Your task to perform on an android device: open app "Duolingo: language lessons" (install if not already installed) Image 0: 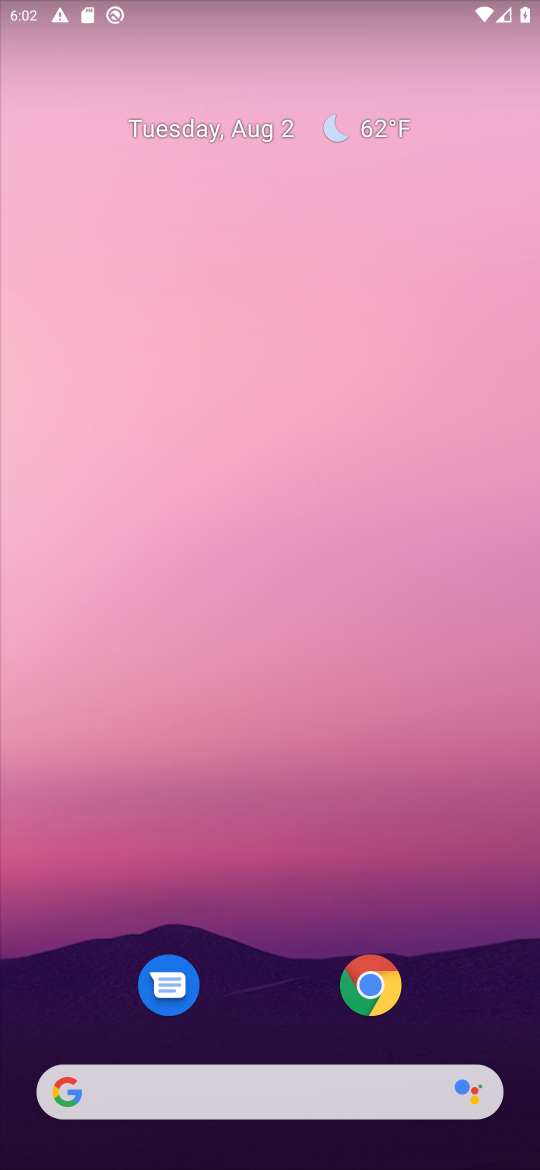
Step 0: drag from (284, 953) to (287, 427)
Your task to perform on an android device: open app "Duolingo: language lessons" (install if not already installed) Image 1: 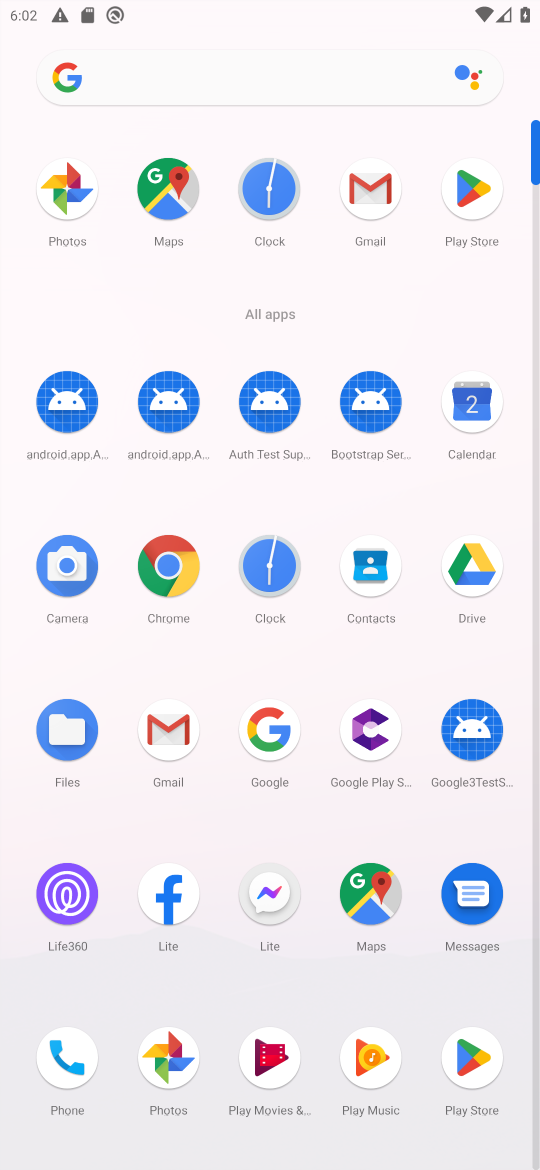
Step 1: click (474, 214)
Your task to perform on an android device: open app "Duolingo: language lessons" (install if not already installed) Image 2: 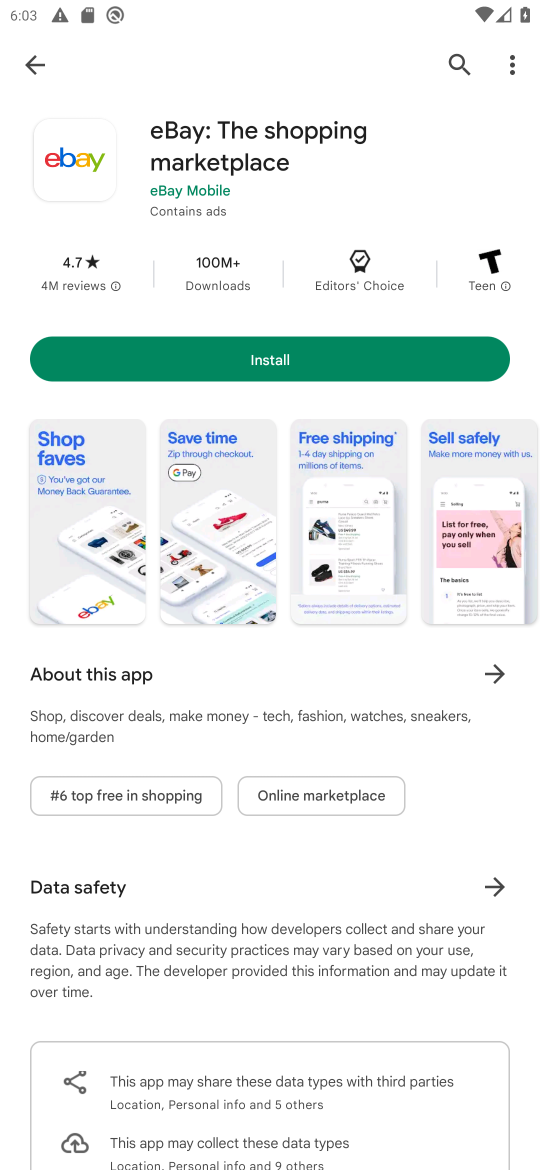
Step 2: click (453, 75)
Your task to perform on an android device: open app "Duolingo: language lessons" (install if not already installed) Image 3: 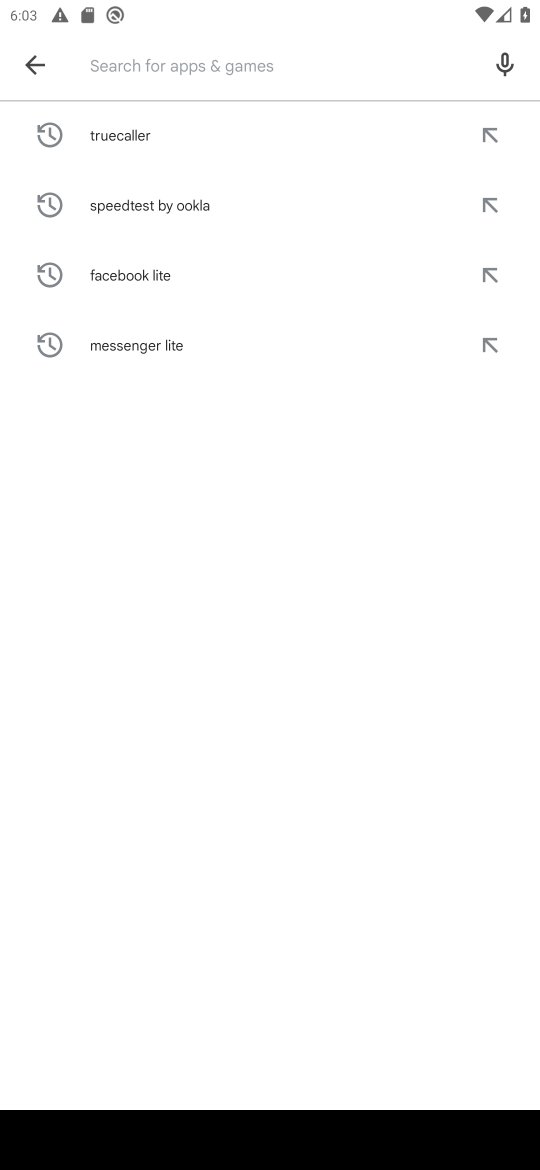
Step 3: type "Duolingo: language lessons"
Your task to perform on an android device: open app "Duolingo: language lessons" (install if not already installed) Image 4: 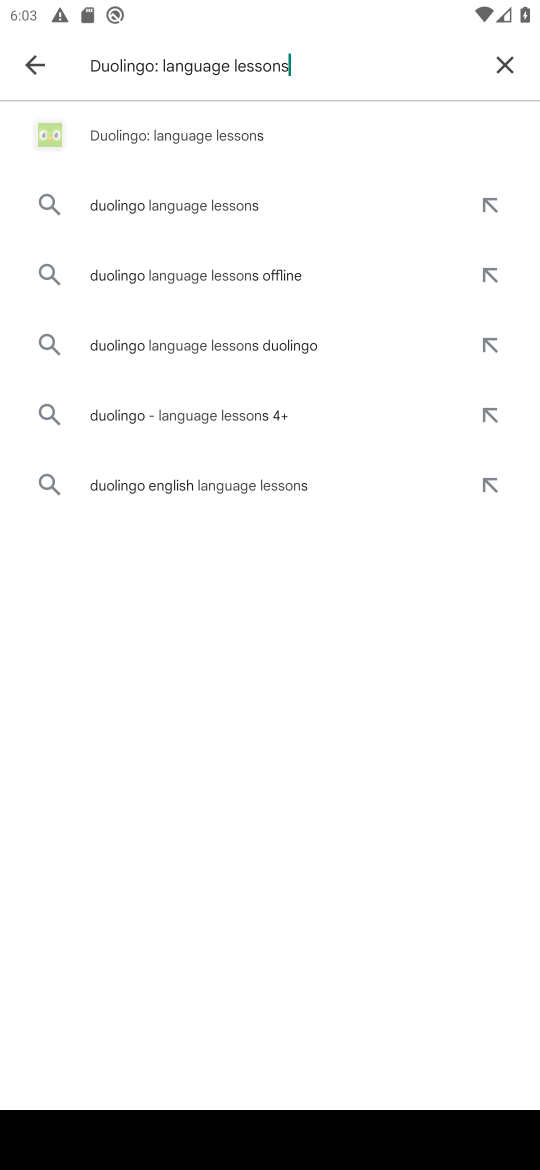
Step 4: type ""
Your task to perform on an android device: open app "Duolingo: language lessons" (install if not already installed) Image 5: 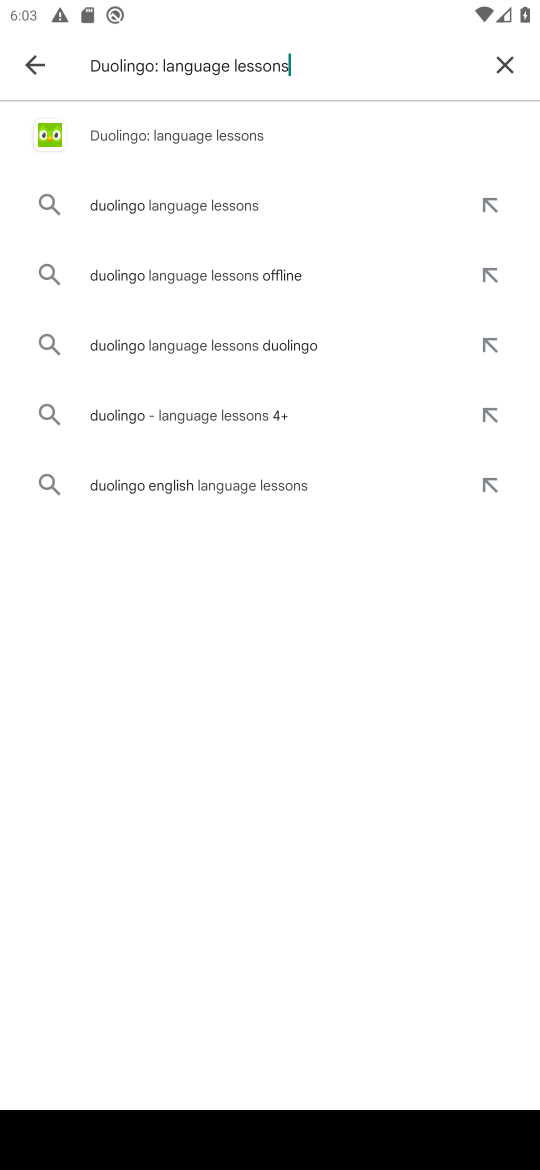
Step 5: click (132, 151)
Your task to perform on an android device: open app "Duolingo: language lessons" (install if not already installed) Image 6: 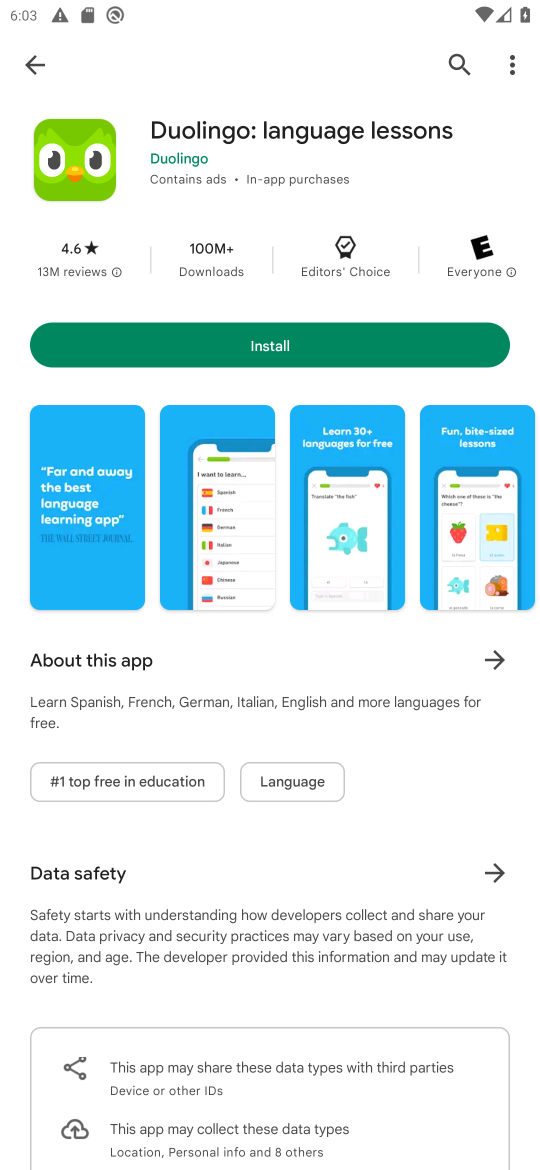
Step 6: click (343, 355)
Your task to perform on an android device: open app "Duolingo: language lessons" (install if not already installed) Image 7: 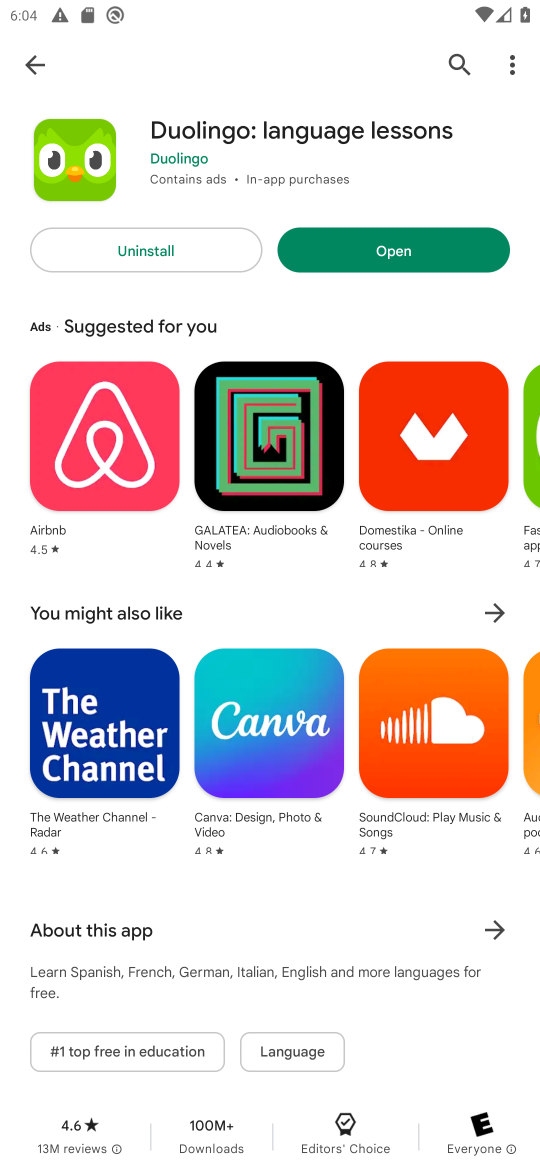
Step 7: click (407, 257)
Your task to perform on an android device: open app "Duolingo: language lessons" (install if not already installed) Image 8: 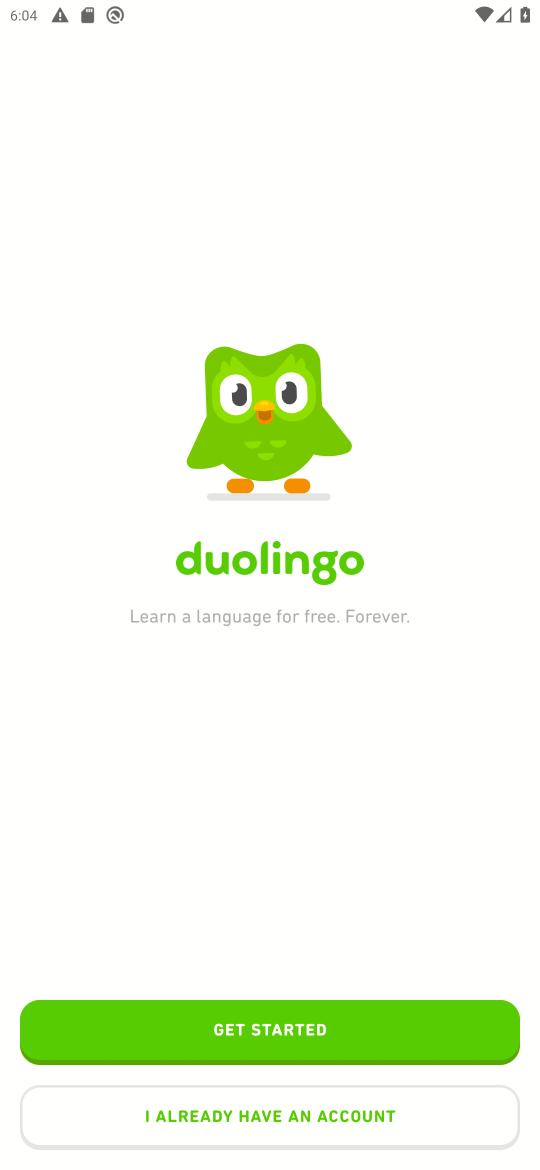
Step 8: task complete